Your task to perform on an android device: check data usage Image 0: 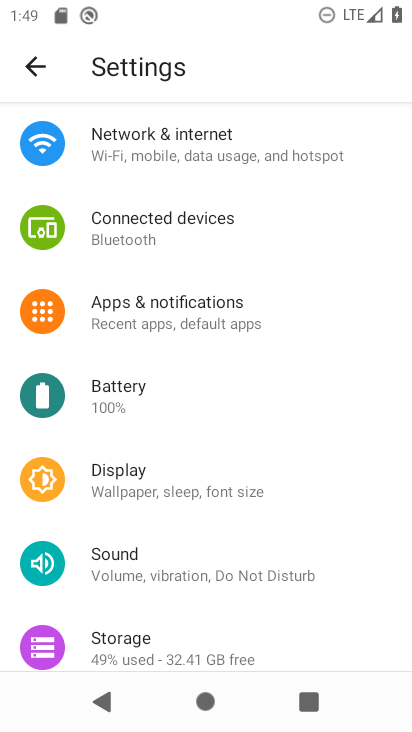
Step 0: click (248, 138)
Your task to perform on an android device: check data usage Image 1: 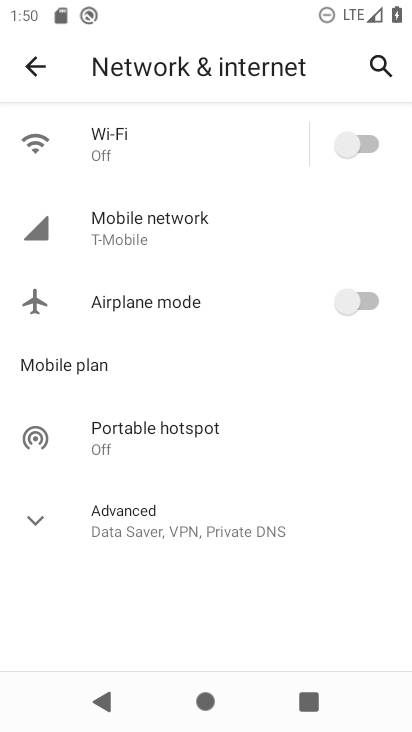
Step 1: click (208, 223)
Your task to perform on an android device: check data usage Image 2: 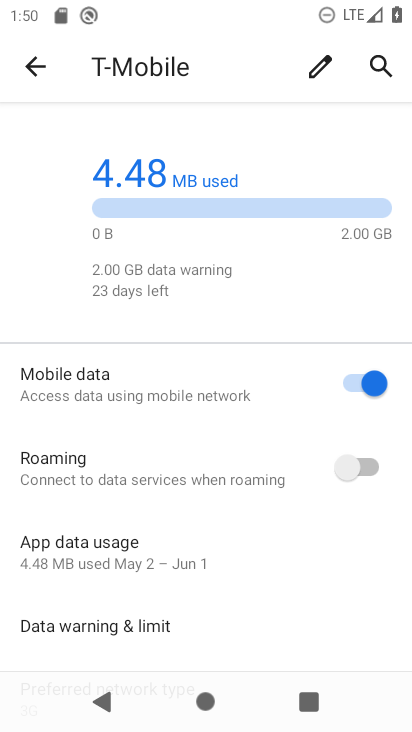
Step 2: task complete